Your task to perform on an android device: uninstall "Adobe Express: Graphic Design" Image 0: 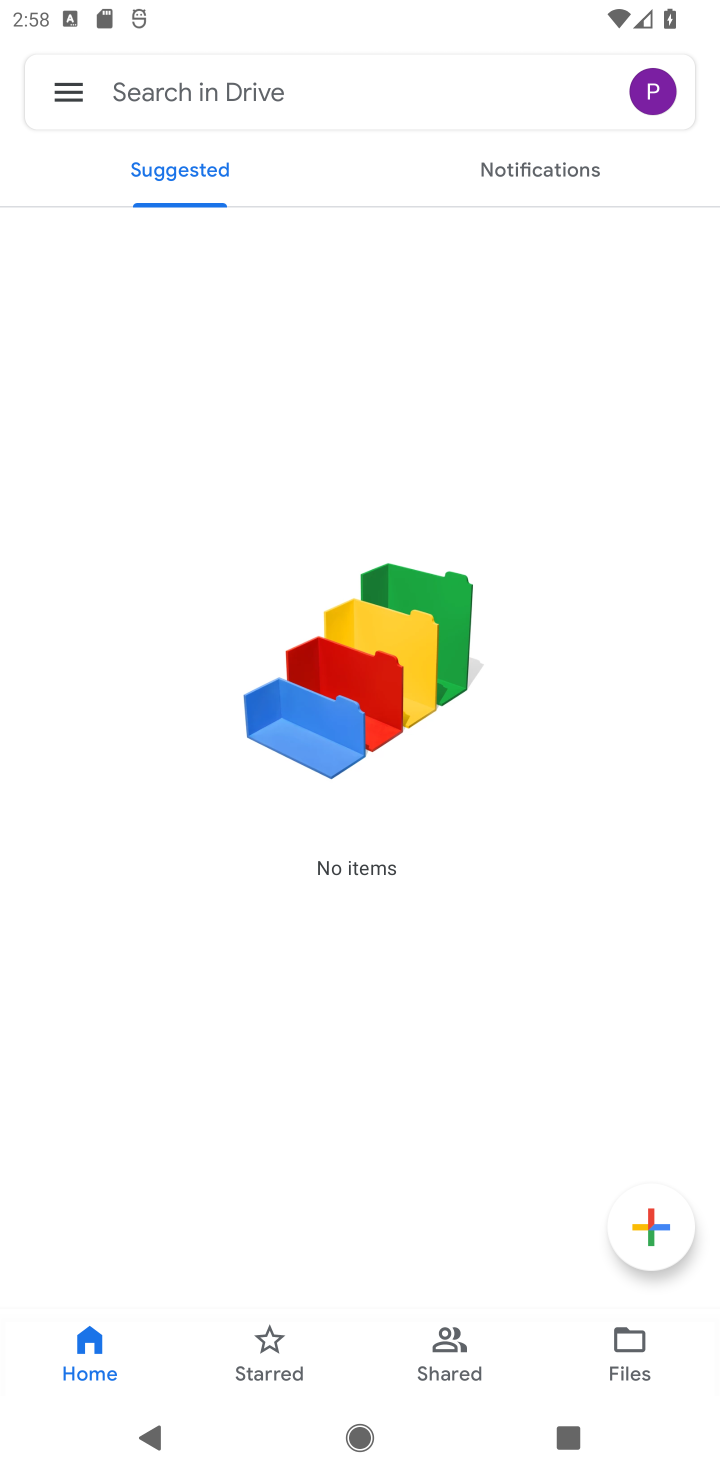
Step 0: press home button
Your task to perform on an android device: uninstall "Adobe Express: Graphic Design" Image 1: 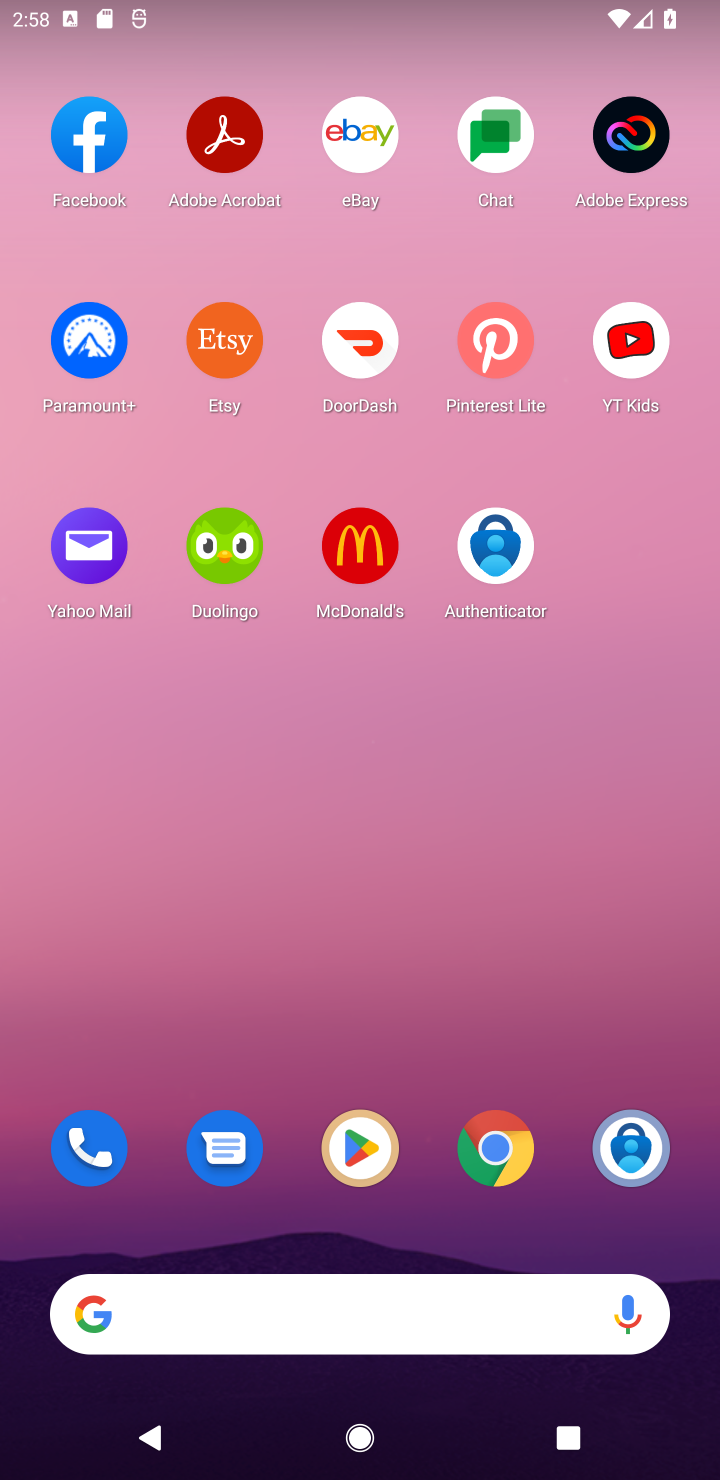
Step 1: drag from (400, 1212) to (407, 443)
Your task to perform on an android device: uninstall "Adobe Express: Graphic Design" Image 2: 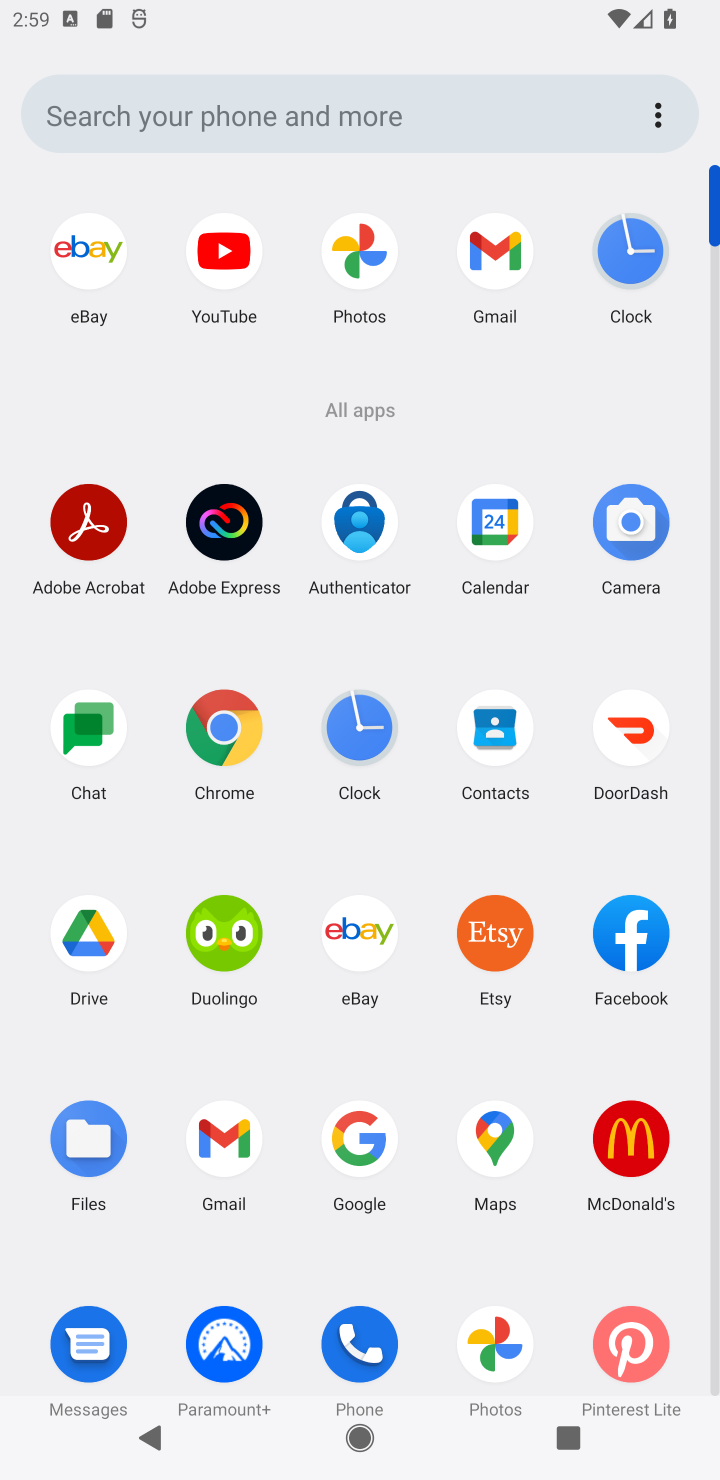
Step 2: drag from (280, 1237) to (352, 291)
Your task to perform on an android device: uninstall "Adobe Express: Graphic Design" Image 3: 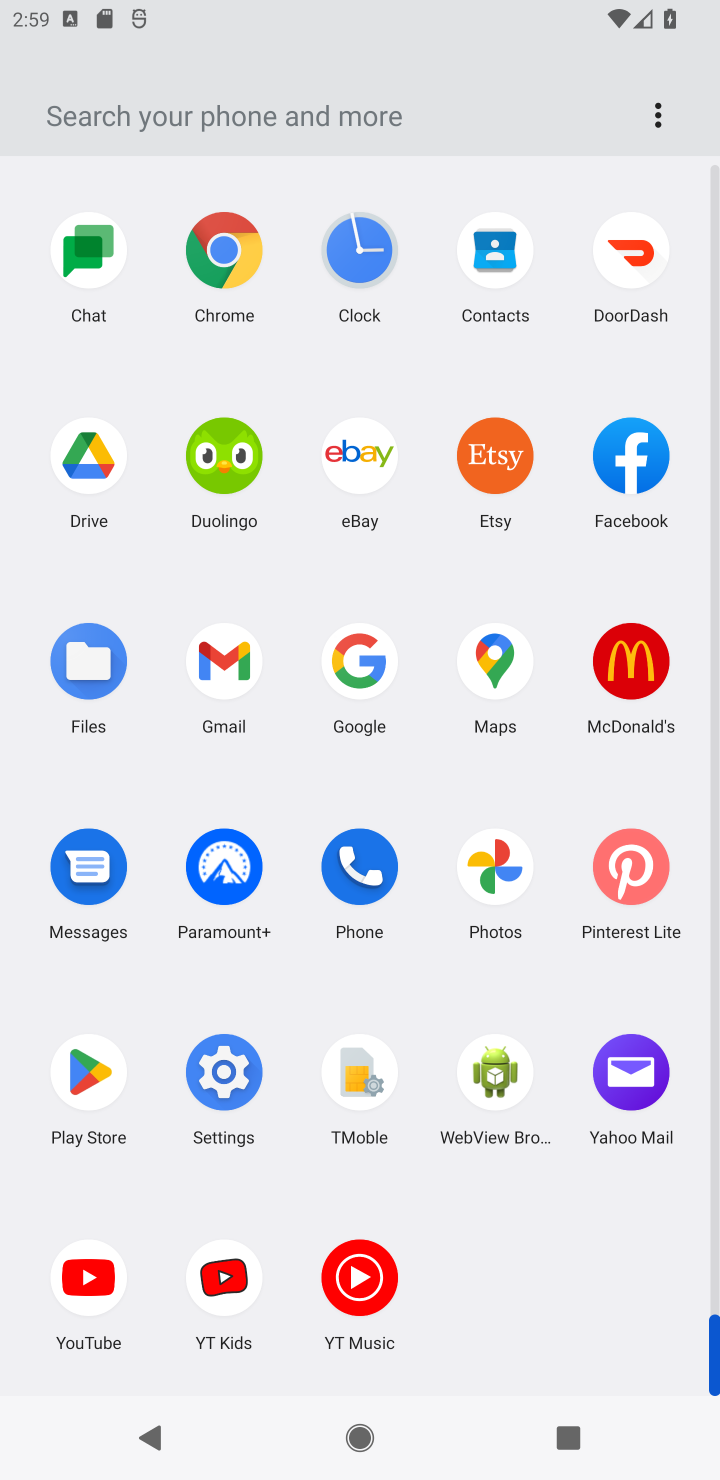
Step 3: click (79, 1138)
Your task to perform on an android device: uninstall "Adobe Express: Graphic Design" Image 4: 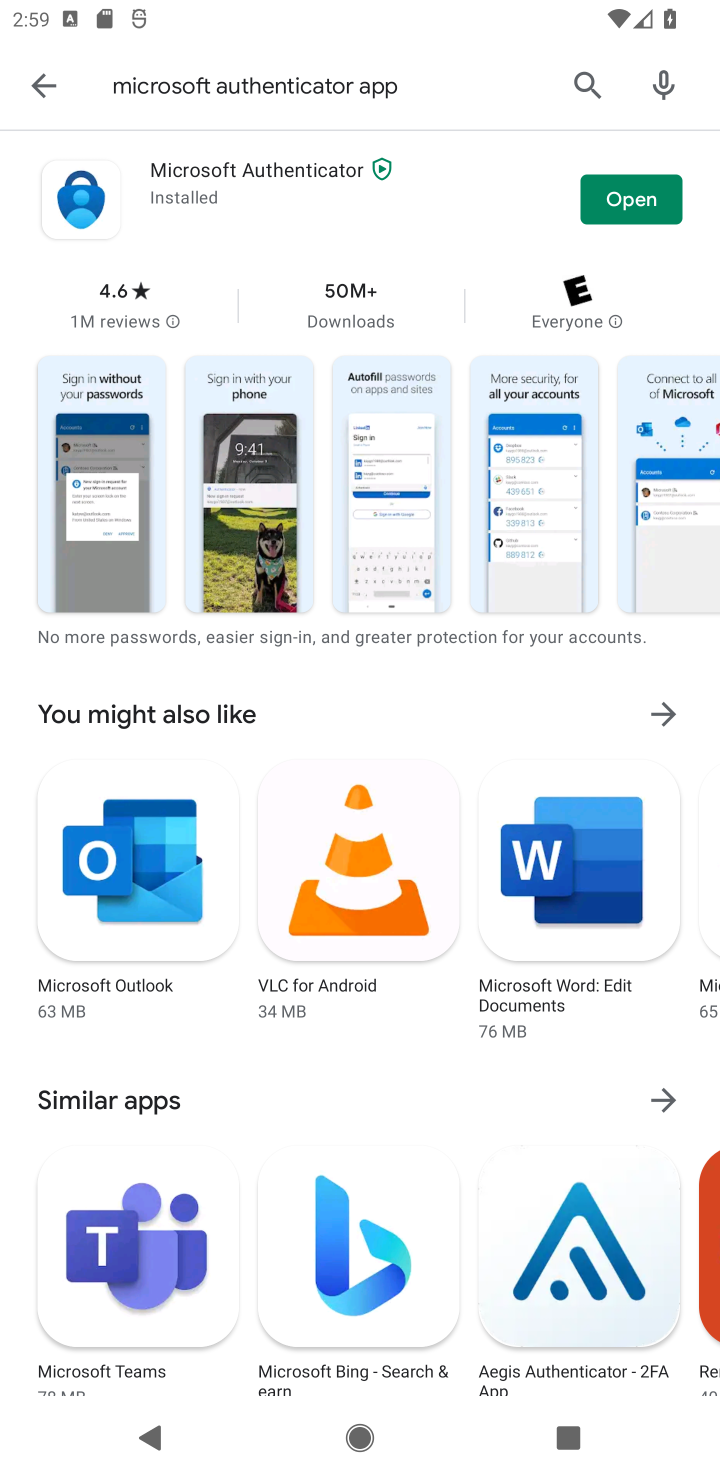
Step 4: click (33, 74)
Your task to perform on an android device: uninstall "Adobe Express: Graphic Design" Image 5: 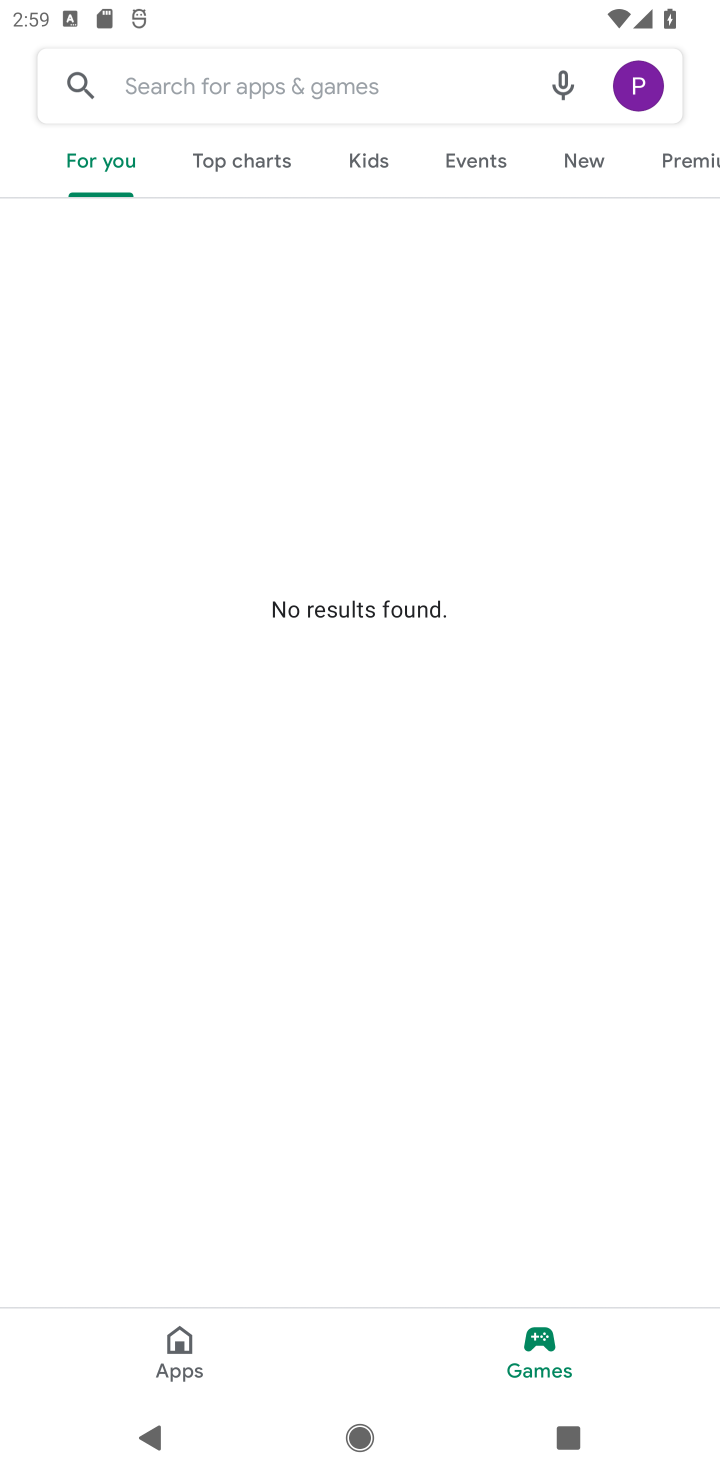
Step 5: click (309, 72)
Your task to perform on an android device: uninstall "Adobe Express: Graphic Design" Image 6: 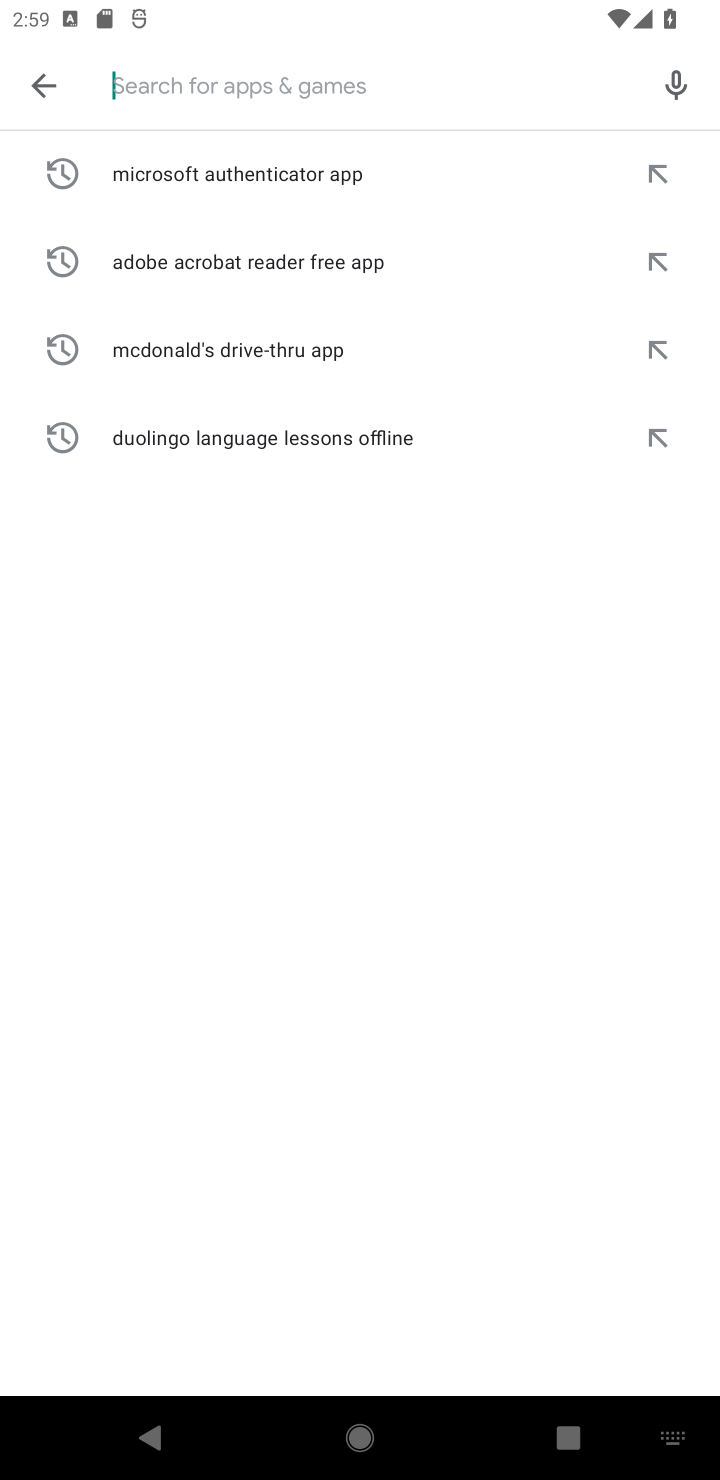
Step 6: type "Adobe Express: Graphic Design "
Your task to perform on an android device: uninstall "Adobe Express: Graphic Design" Image 7: 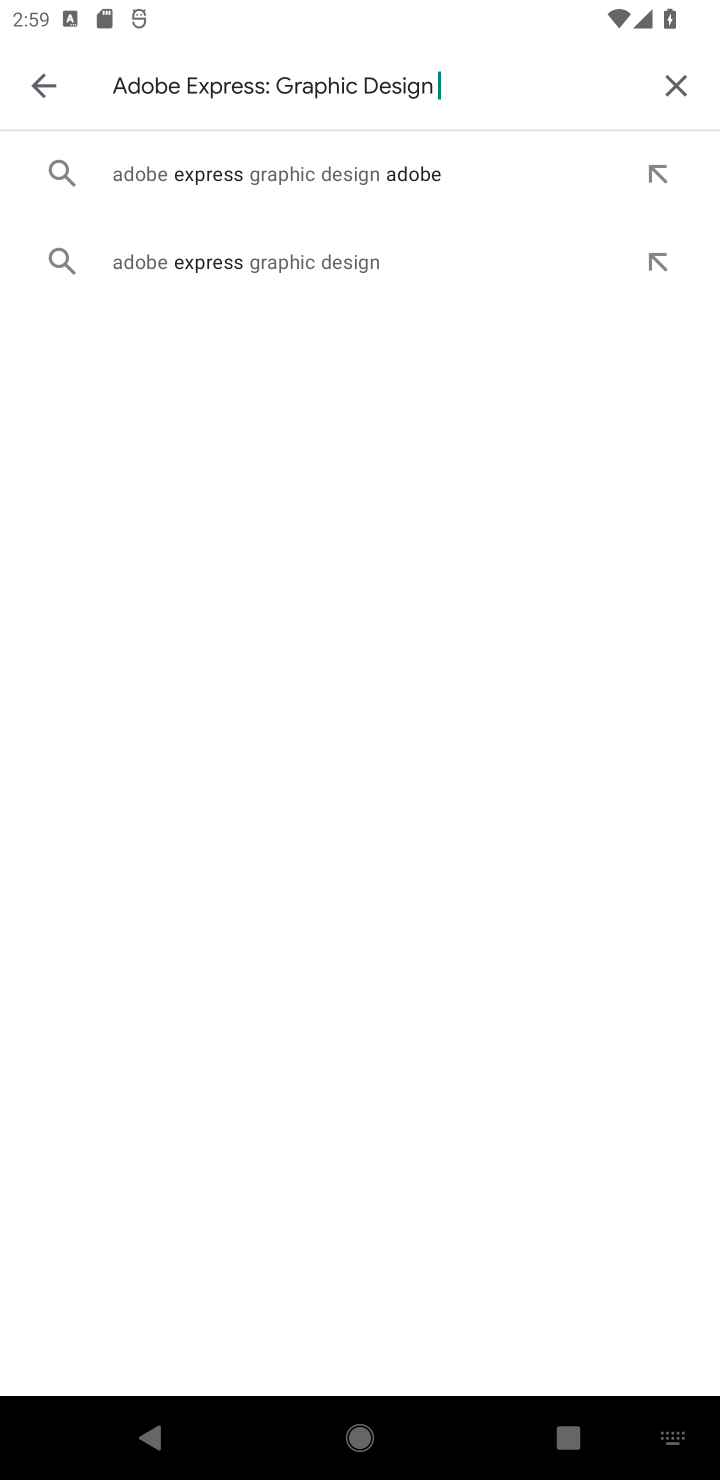
Step 7: click (325, 170)
Your task to perform on an android device: uninstall "Adobe Express: Graphic Design" Image 8: 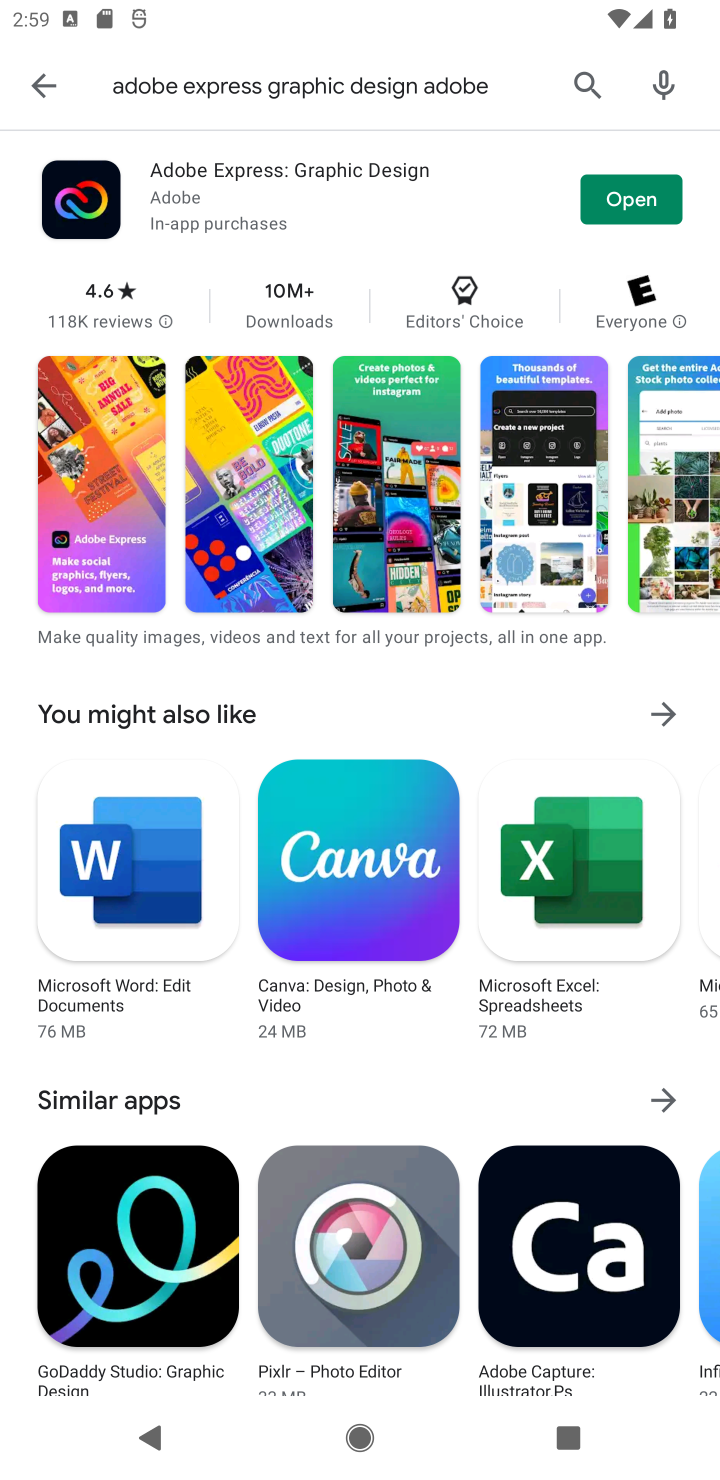
Step 8: click (165, 183)
Your task to perform on an android device: uninstall "Adobe Express: Graphic Design" Image 9: 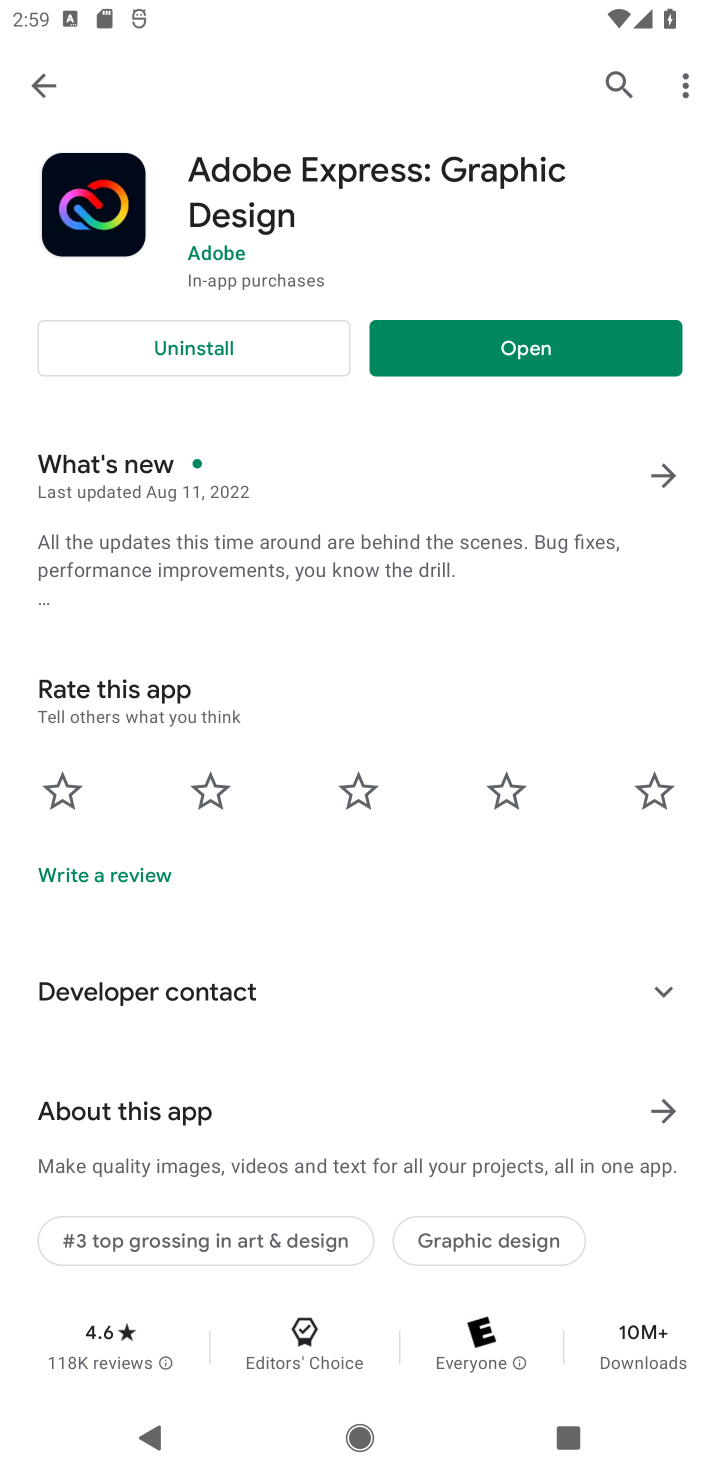
Step 9: click (266, 339)
Your task to perform on an android device: uninstall "Adobe Express: Graphic Design" Image 10: 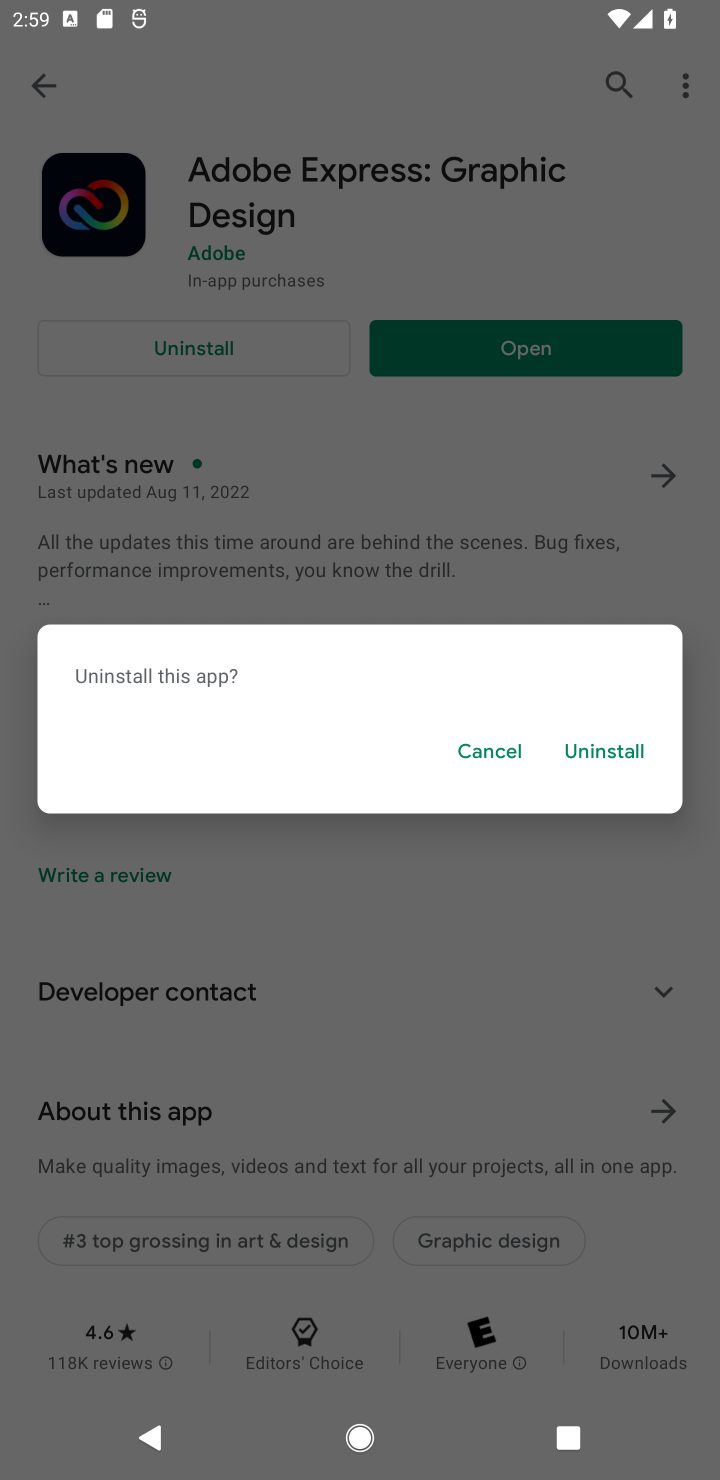
Step 10: click (608, 746)
Your task to perform on an android device: uninstall "Adobe Express: Graphic Design" Image 11: 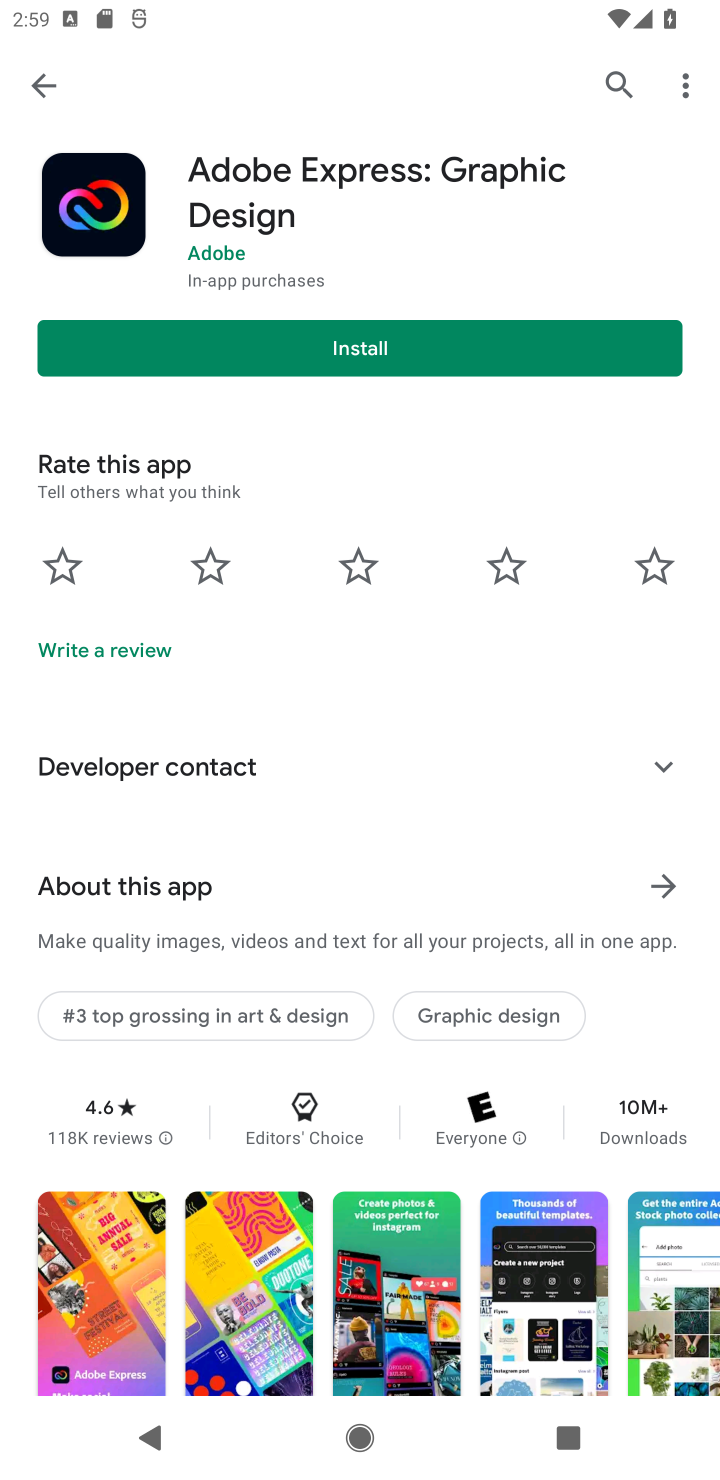
Step 11: task complete